Your task to perform on an android device: Open calendar and show me the first week of next month Image 0: 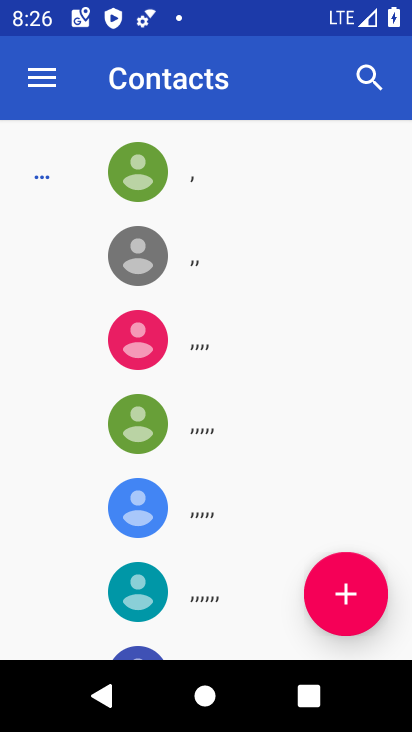
Step 0: drag from (356, 13) to (407, 457)
Your task to perform on an android device: Open calendar and show me the first week of next month Image 1: 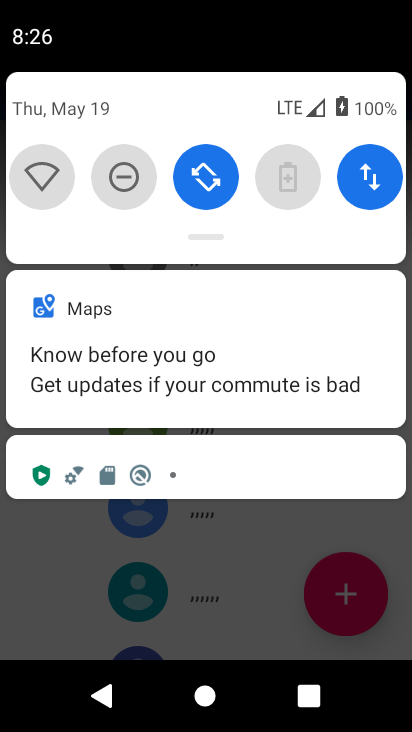
Step 1: drag from (173, 491) to (143, 47)
Your task to perform on an android device: Open calendar and show me the first week of next month Image 2: 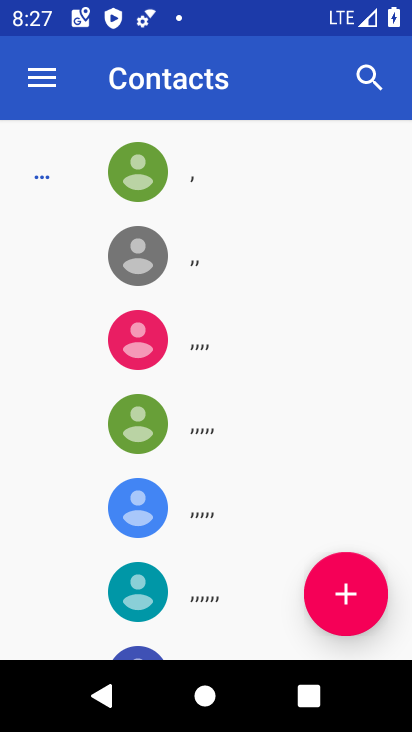
Step 2: drag from (195, 597) to (275, 71)
Your task to perform on an android device: Open calendar and show me the first week of next month Image 3: 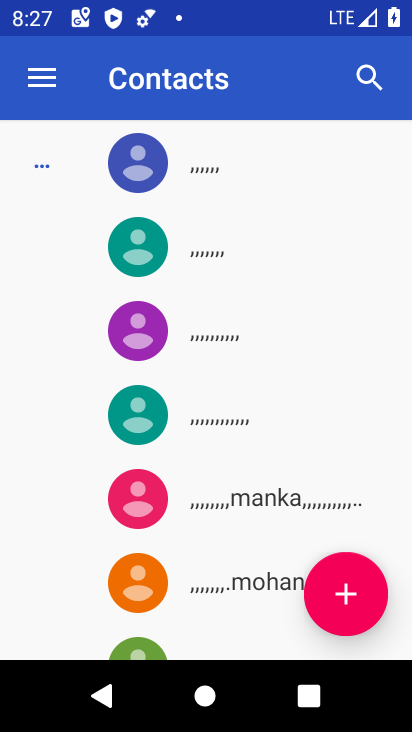
Step 3: press home button
Your task to perform on an android device: Open calendar and show me the first week of next month Image 4: 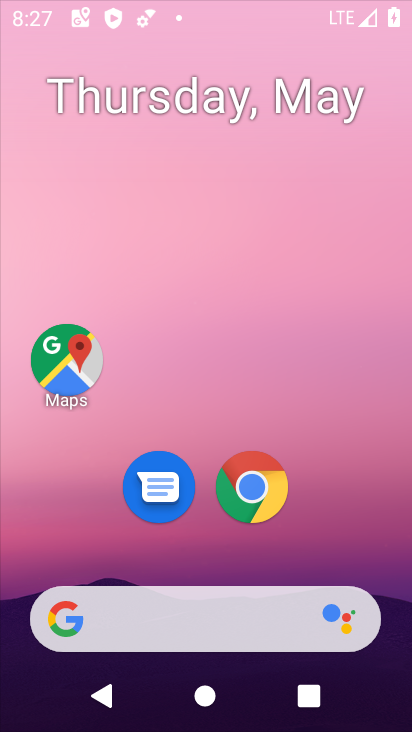
Step 4: drag from (146, 537) to (283, 0)
Your task to perform on an android device: Open calendar and show me the first week of next month Image 5: 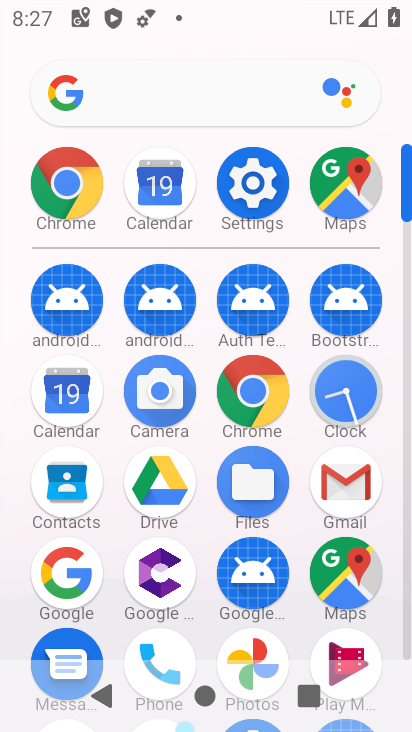
Step 5: click (81, 397)
Your task to perform on an android device: Open calendar and show me the first week of next month Image 6: 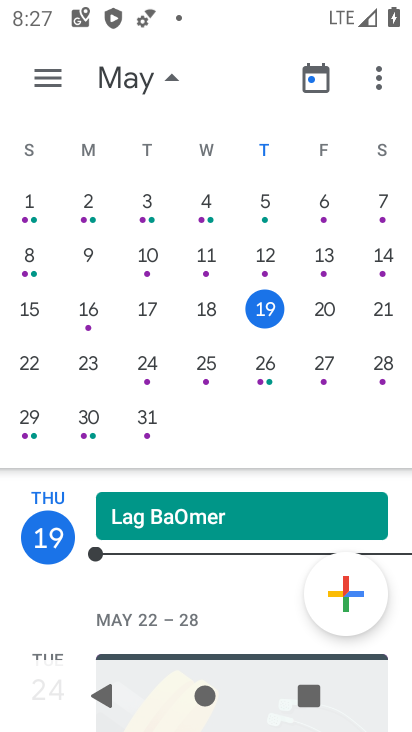
Step 6: drag from (382, 300) to (48, 289)
Your task to perform on an android device: Open calendar and show me the first week of next month Image 7: 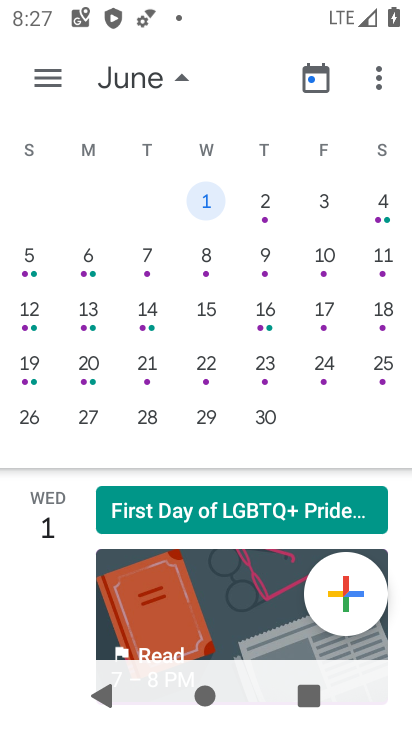
Step 7: click (262, 208)
Your task to perform on an android device: Open calendar and show me the first week of next month Image 8: 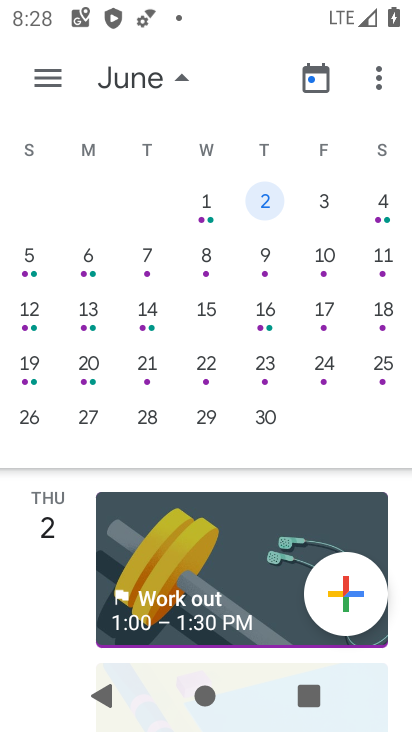
Step 8: task complete